Your task to perform on an android device: Go to display settings Image 0: 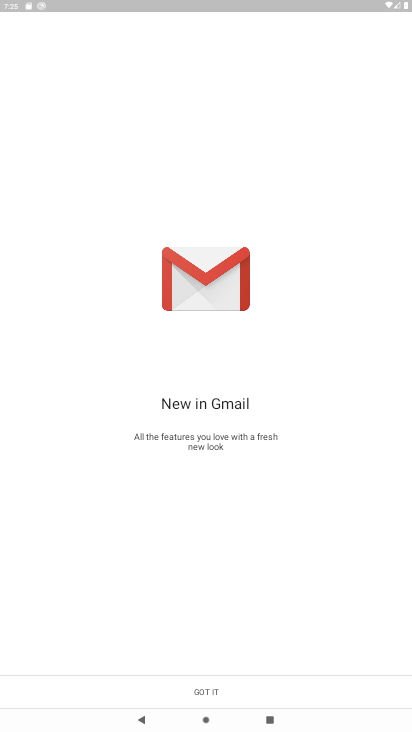
Step 0: press home button
Your task to perform on an android device: Go to display settings Image 1: 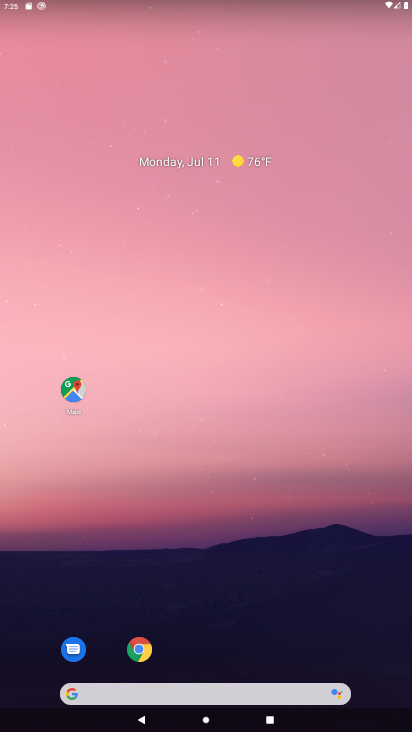
Step 1: drag from (371, 708) to (336, 113)
Your task to perform on an android device: Go to display settings Image 2: 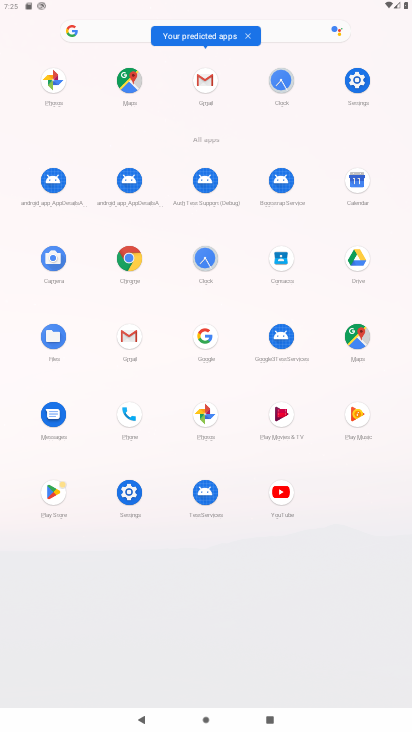
Step 2: drag from (357, 74) to (222, 331)
Your task to perform on an android device: Go to display settings Image 3: 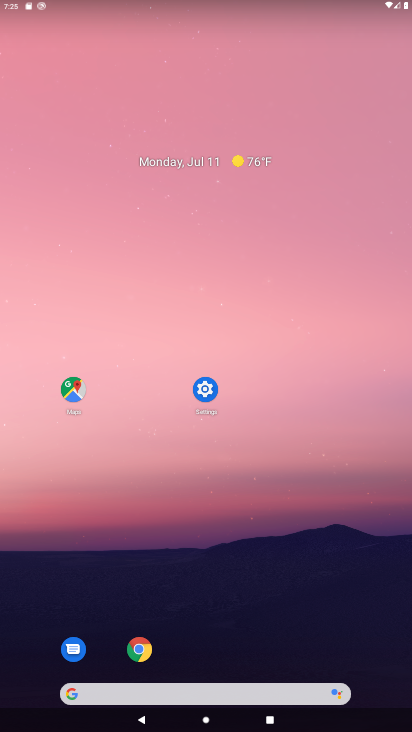
Step 3: click (208, 383)
Your task to perform on an android device: Go to display settings Image 4: 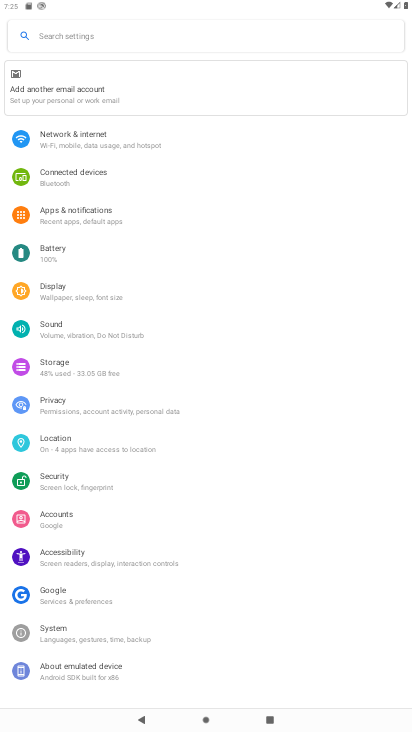
Step 4: click (52, 290)
Your task to perform on an android device: Go to display settings Image 5: 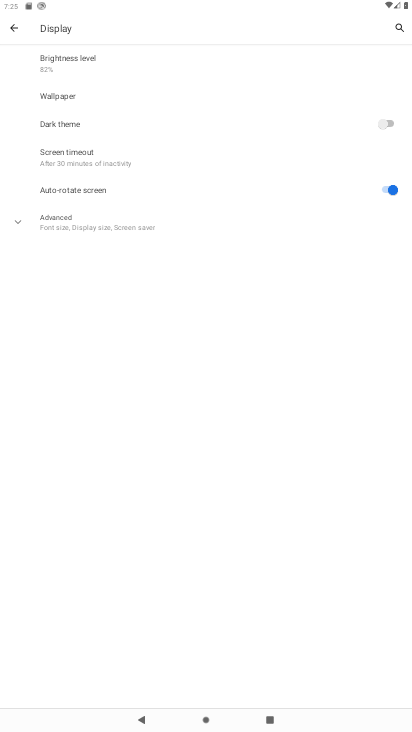
Step 5: click (22, 221)
Your task to perform on an android device: Go to display settings Image 6: 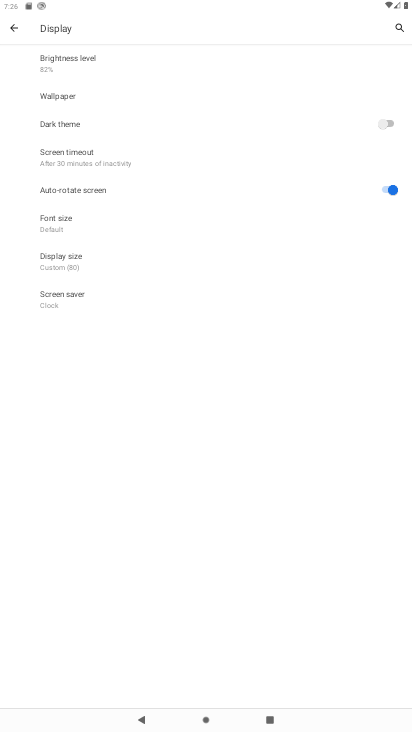
Step 6: task complete